Your task to perform on an android device: Open display settings Image 0: 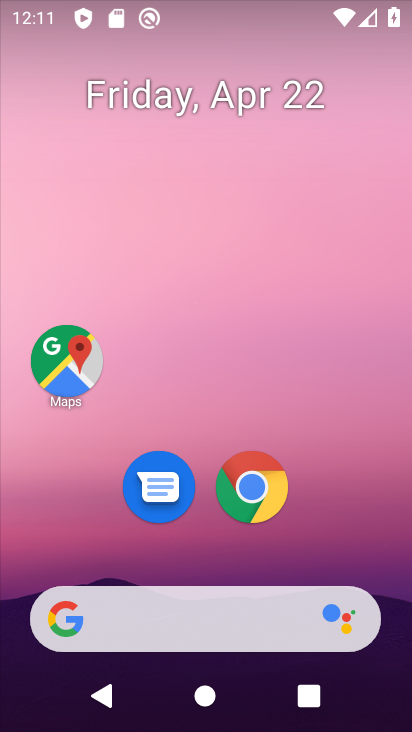
Step 0: drag from (208, 546) to (247, 147)
Your task to perform on an android device: Open display settings Image 1: 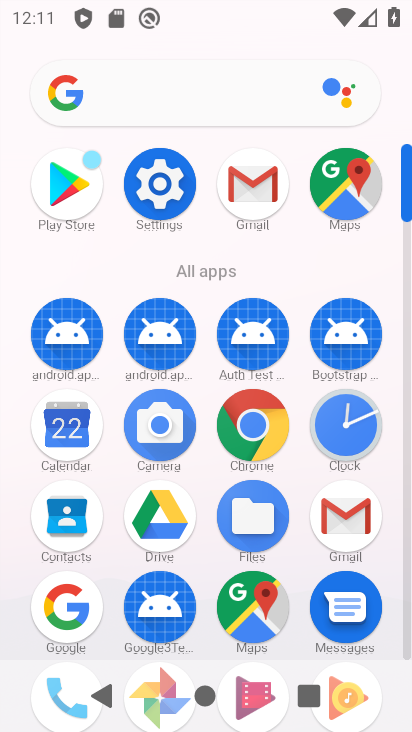
Step 1: click (179, 171)
Your task to perform on an android device: Open display settings Image 2: 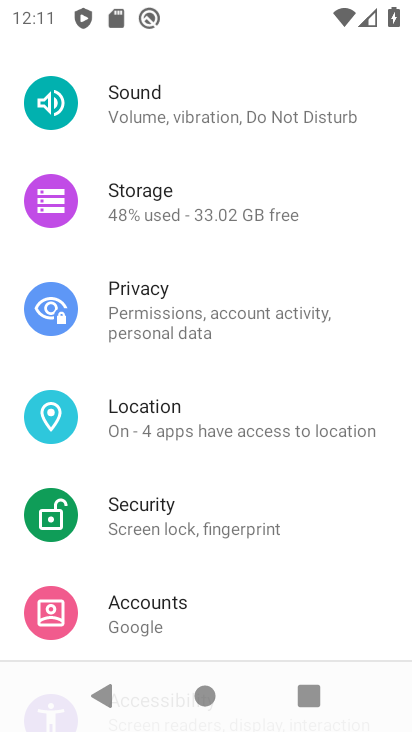
Step 2: drag from (218, 77) to (239, 618)
Your task to perform on an android device: Open display settings Image 3: 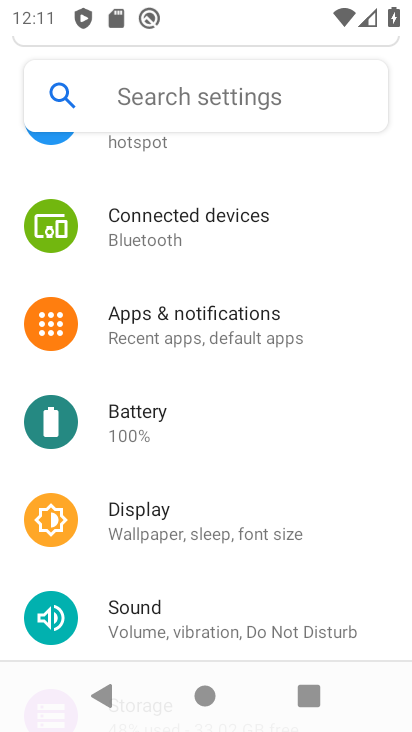
Step 3: drag from (137, 192) to (219, 604)
Your task to perform on an android device: Open display settings Image 4: 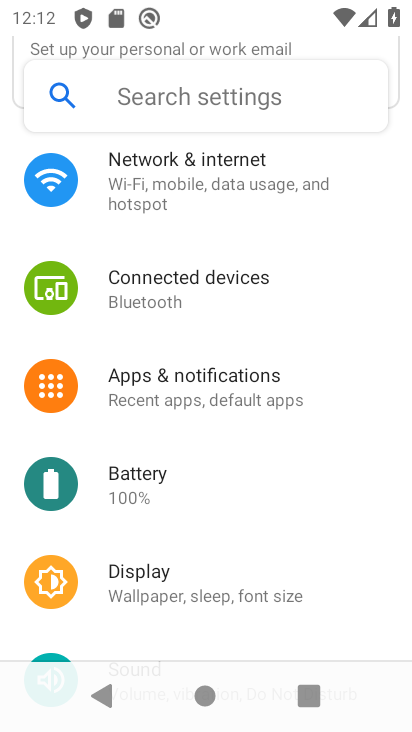
Step 4: click (99, 577)
Your task to perform on an android device: Open display settings Image 5: 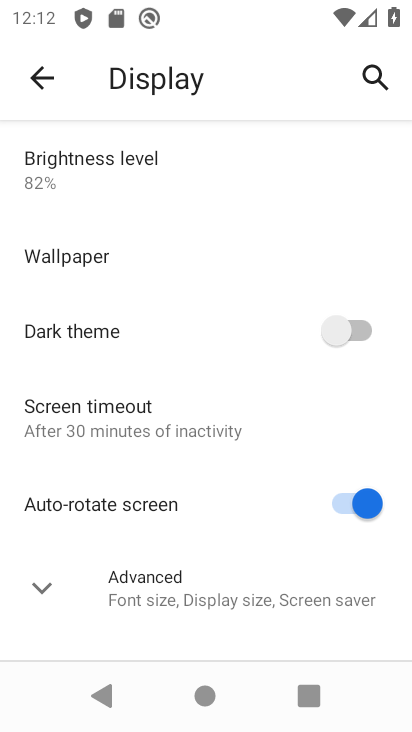
Step 5: task complete